Your task to perform on an android device: Open Google Maps Image 0: 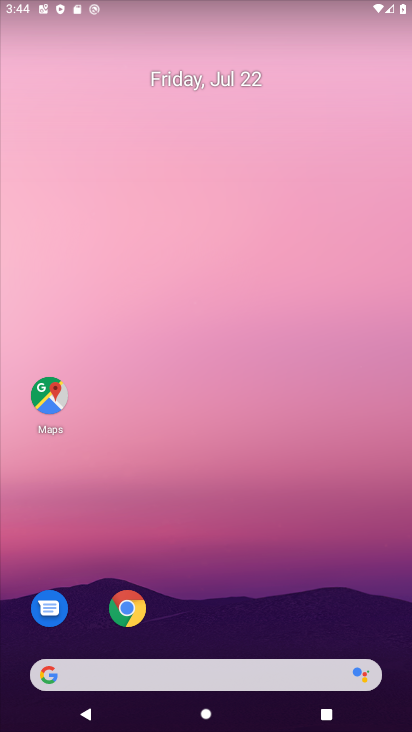
Step 0: drag from (226, 723) to (228, 32)
Your task to perform on an android device: Open Google Maps Image 1: 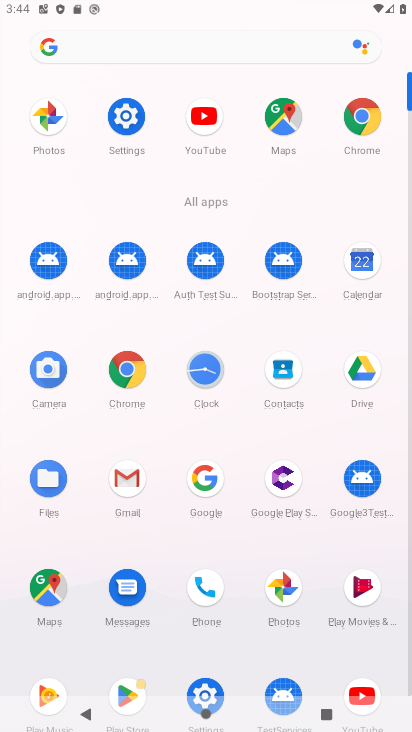
Step 1: click (48, 579)
Your task to perform on an android device: Open Google Maps Image 2: 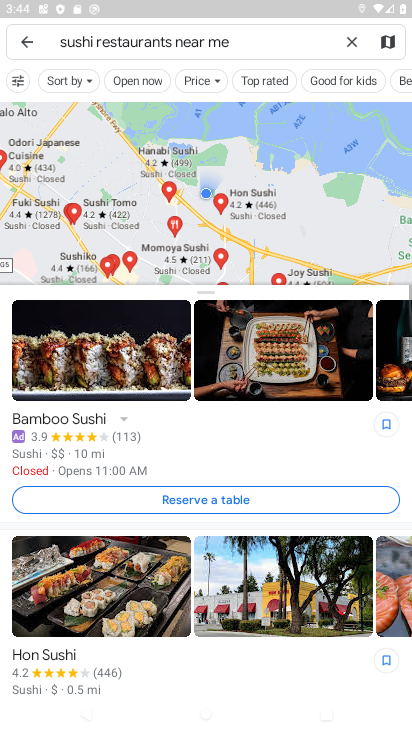
Step 2: task complete